Your task to perform on an android device: snooze an email in the gmail app Image 0: 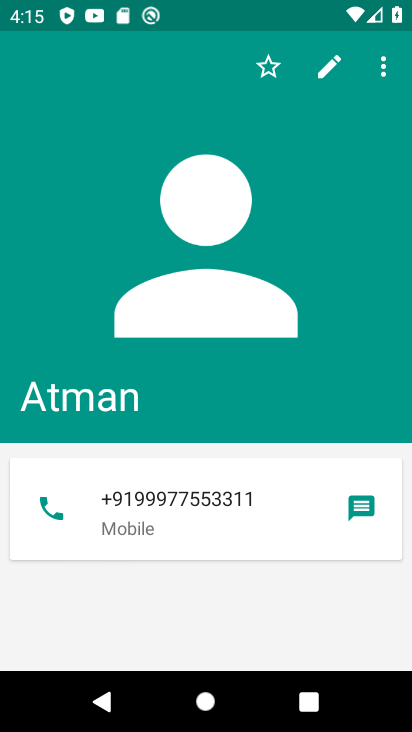
Step 0: press home button
Your task to perform on an android device: snooze an email in the gmail app Image 1: 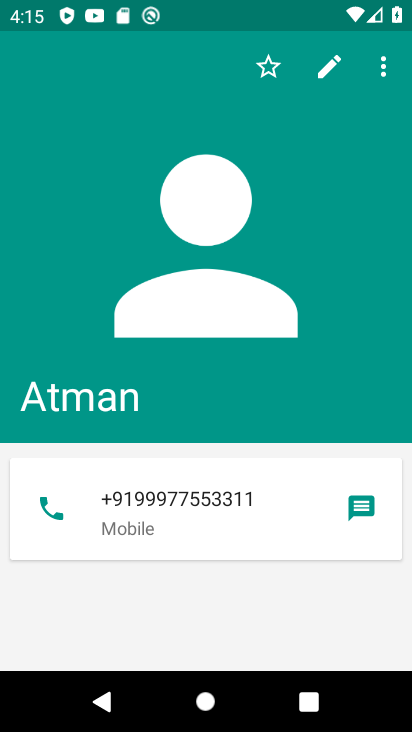
Step 1: press home button
Your task to perform on an android device: snooze an email in the gmail app Image 2: 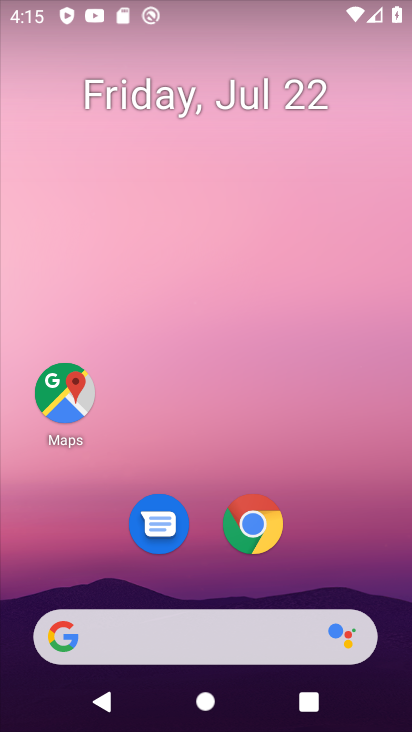
Step 2: drag from (341, 577) to (209, 63)
Your task to perform on an android device: snooze an email in the gmail app Image 3: 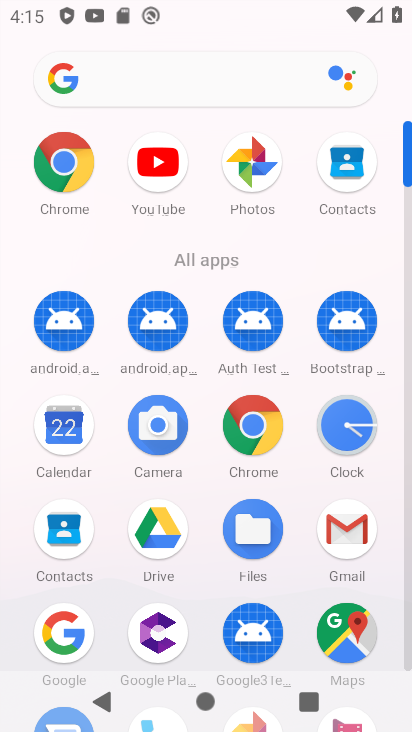
Step 3: click (362, 518)
Your task to perform on an android device: snooze an email in the gmail app Image 4: 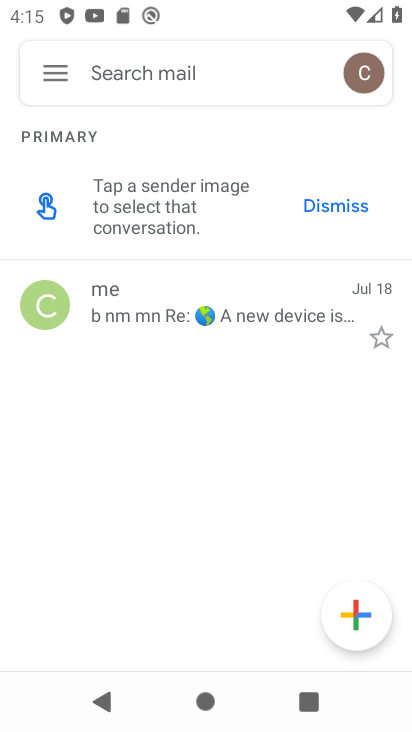
Step 4: click (204, 299)
Your task to perform on an android device: snooze an email in the gmail app Image 5: 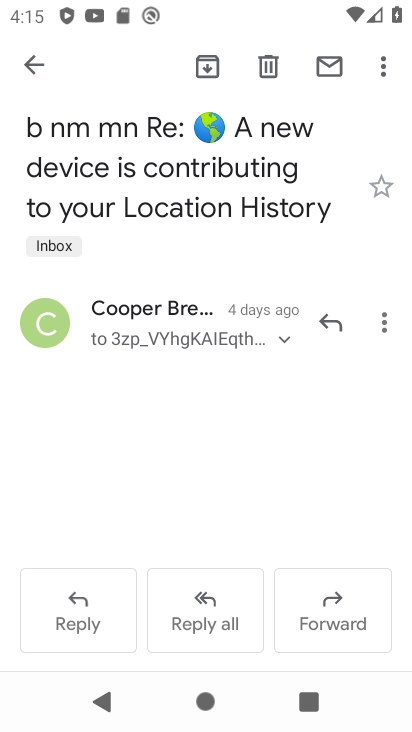
Step 5: click (381, 65)
Your task to perform on an android device: snooze an email in the gmail app Image 6: 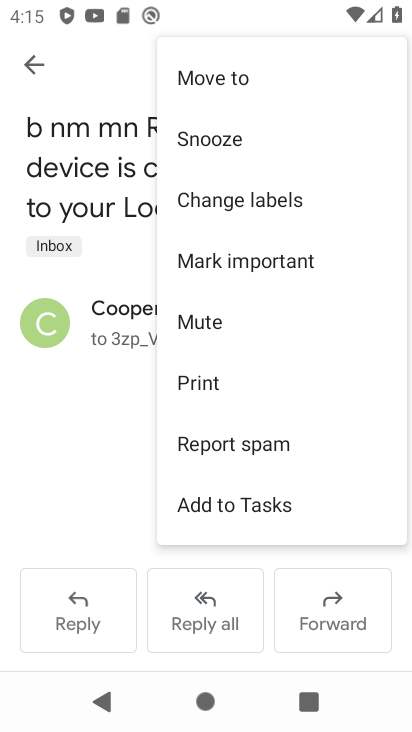
Step 6: click (236, 129)
Your task to perform on an android device: snooze an email in the gmail app Image 7: 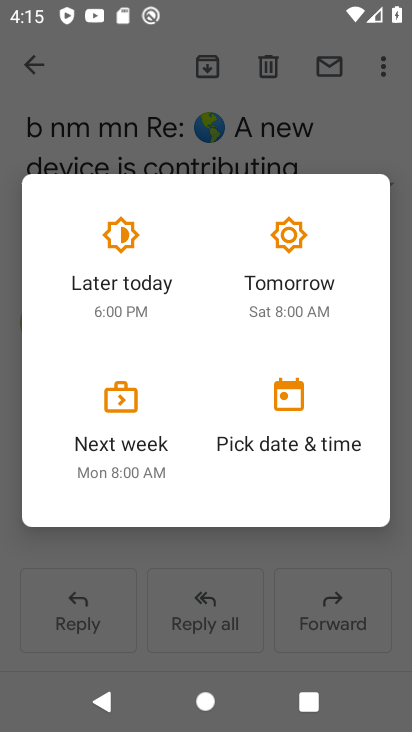
Step 7: click (275, 290)
Your task to perform on an android device: snooze an email in the gmail app Image 8: 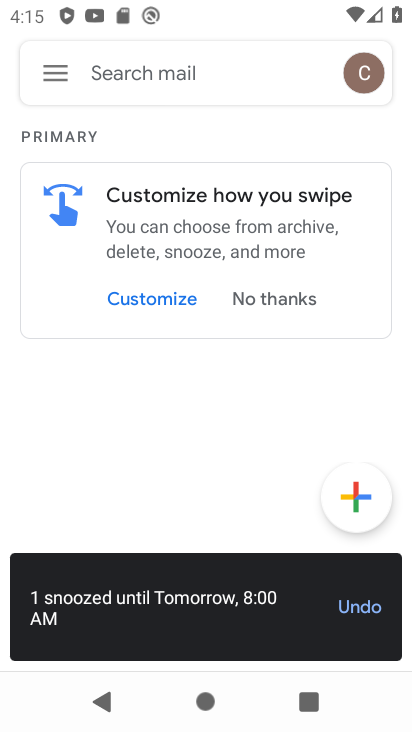
Step 8: task complete